Your task to perform on an android device: allow cookies in the chrome app Image 0: 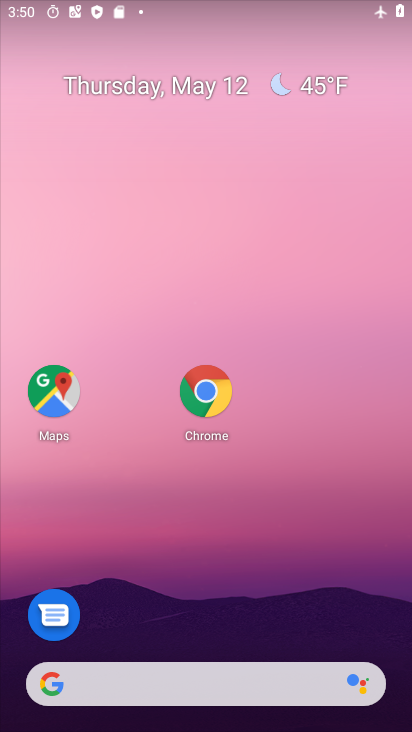
Step 0: drag from (210, 603) to (230, 101)
Your task to perform on an android device: allow cookies in the chrome app Image 1: 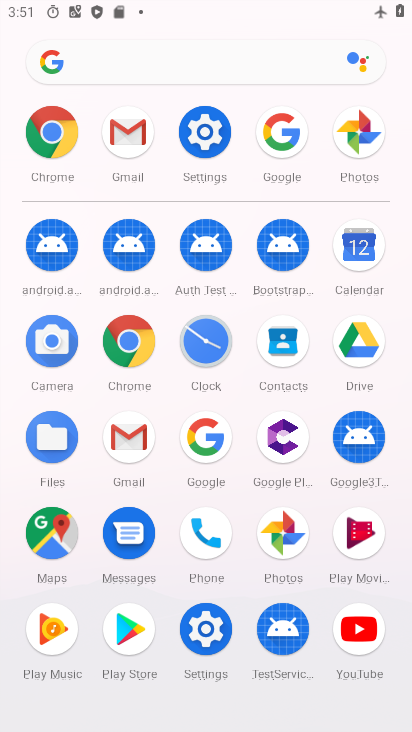
Step 1: click (134, 342)
Your task to perform on an android device: allow cookies in the chrome app Image 2: 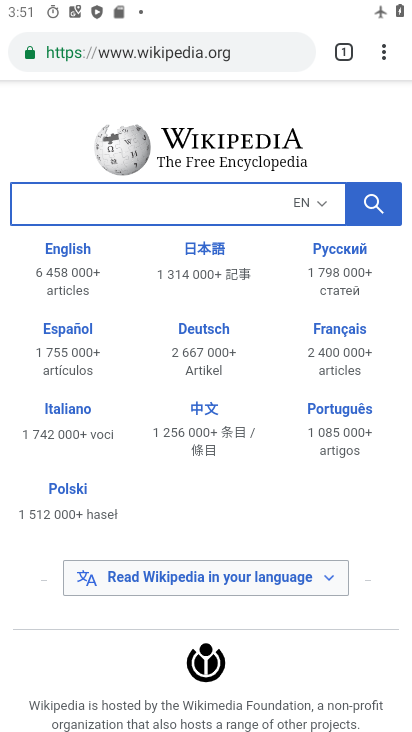
Step 2: click (376, 50)
Your task to perform on an android device: allow cookies in the chrome app Image 3: 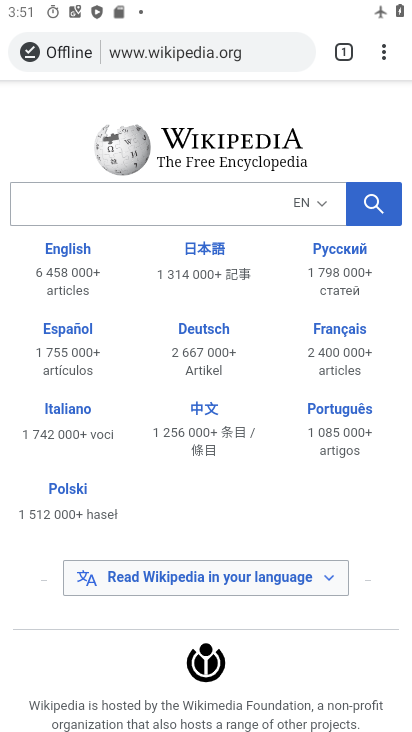
Step 3: click (374, 55)
Your task to perform on an android device: allow cookies in the chrome app Image 4: 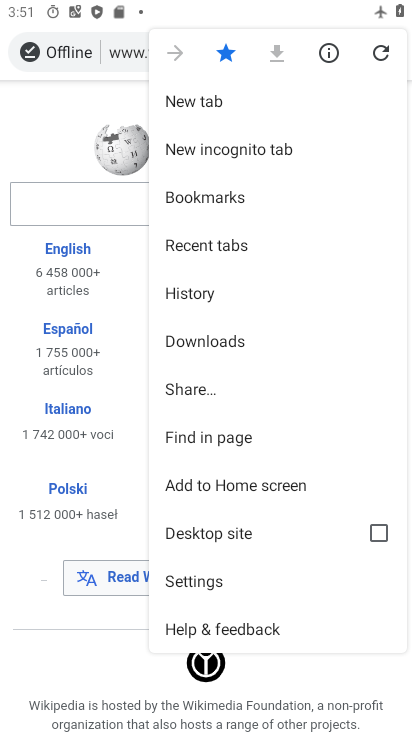
Step 4: click (219, 585)
Your task to perform on an android device: allow cookies in the chrome app Image 5: 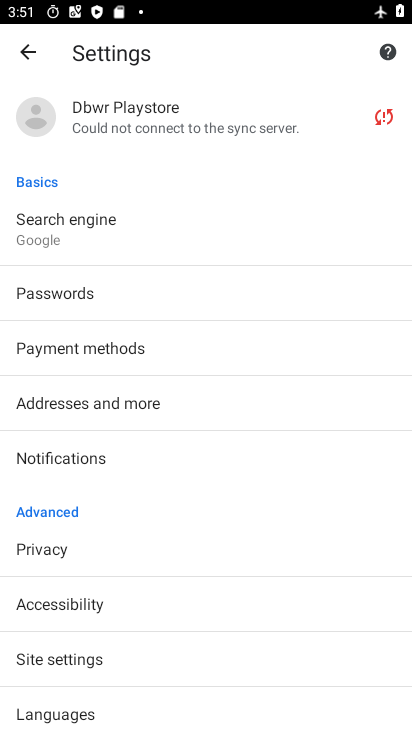
Step 5: drag from (224, 633) to (235, 203)
Your task to perform on an android device: allow cookies in the chrome app Image 6: 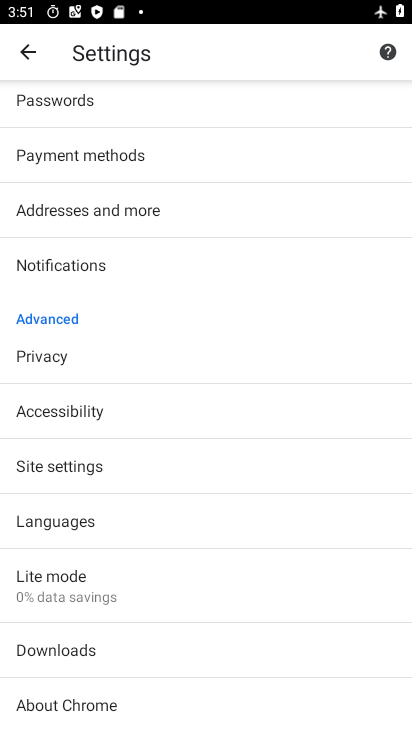
Step 6: click (66, 453)
Your task to perform on an android device: allow cookies in the chrome app Image 7: 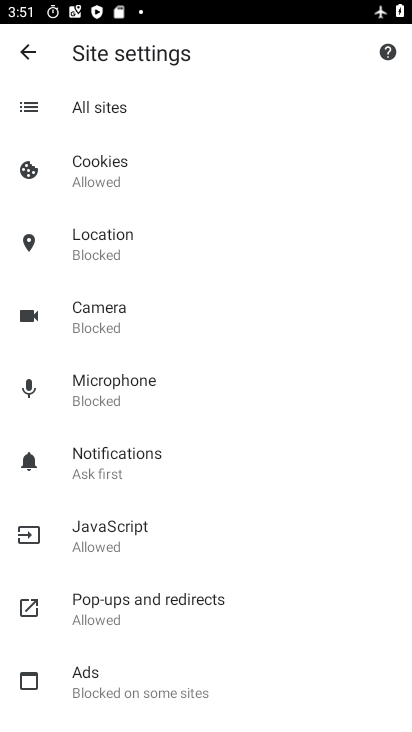
Step 7: click (118, 177)
Your task to perform on an android device: allow cookies in the chrome app Image 8: 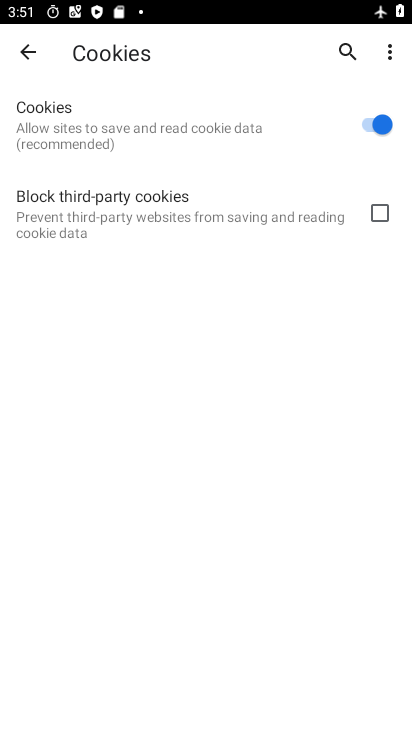
Step 8: task complete